Your task to perform on an android device: open chrome and create a bookmark for the current page Image 0: 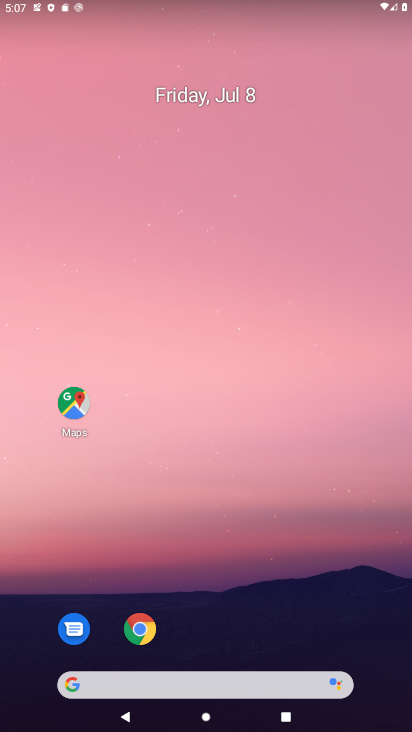
Step 0: press home button
Your task to perform on an android device: open chrome and create a bookmark for the current page Image 1: 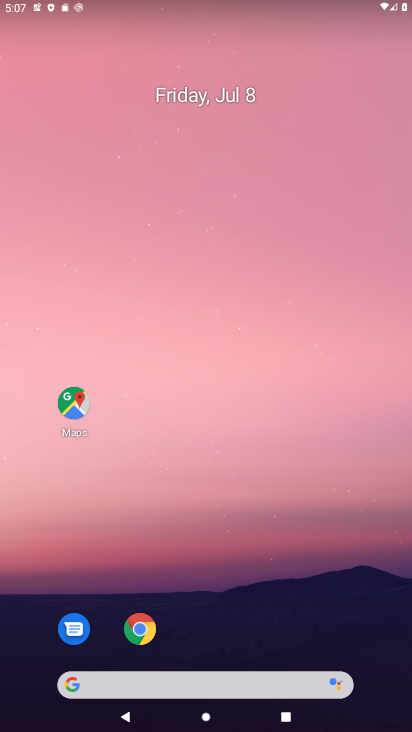
Step 1: drag from (240, 607) to (178, 154)
Your task to perform on an android device: open chrome and create a bookmark for the current page Image 2: 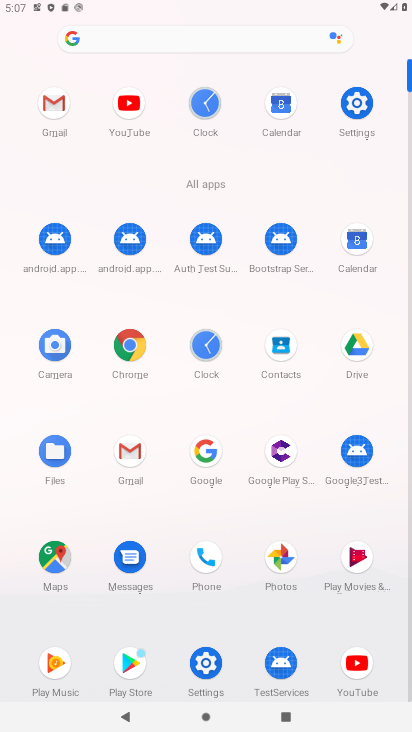
Step 2: click (132, 358)
Your task to perform on an android device: open chrome and create a bookmark for the current page Image 3: 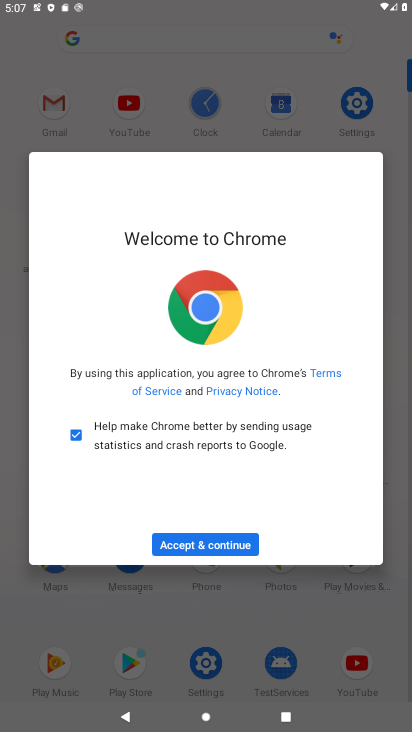
Step 3: click (200, 545)
Your task to perform on an android device: open chrome and create a bookmark for the current page Image 4: 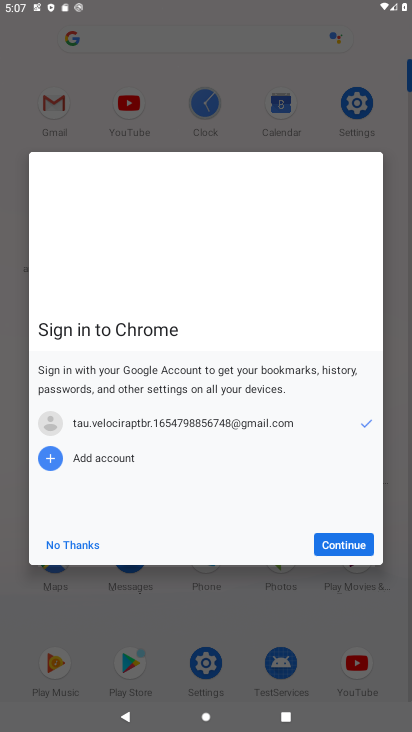
Step 4: click (328, 542)
Your task to perform on an android device: open chrome and create a bookmark for the current page Image 5: 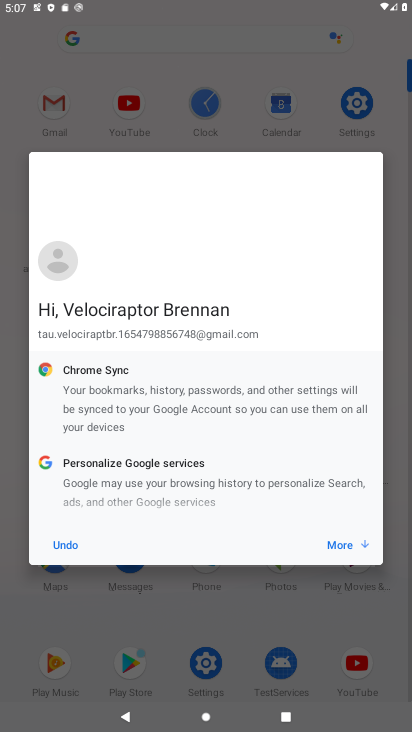
Step 5: click (346, 542)
Your task to perform on an android device: open chrome and create a bookmark for the current page Image 6: 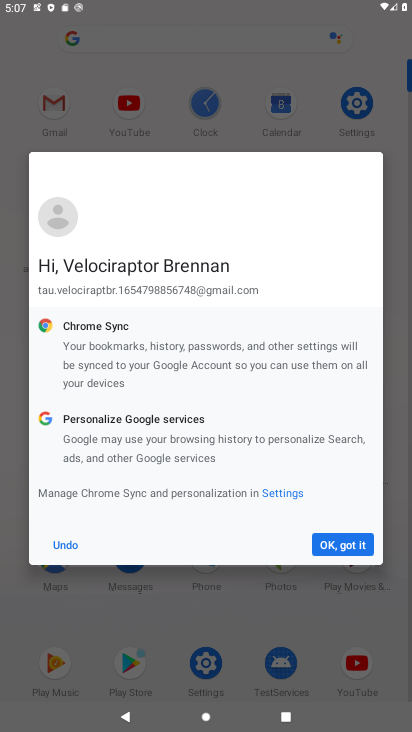
Step 6: click (346, 542)
Your task to perform on an android device: open chrome and create a bookmark for the current page Image 7: 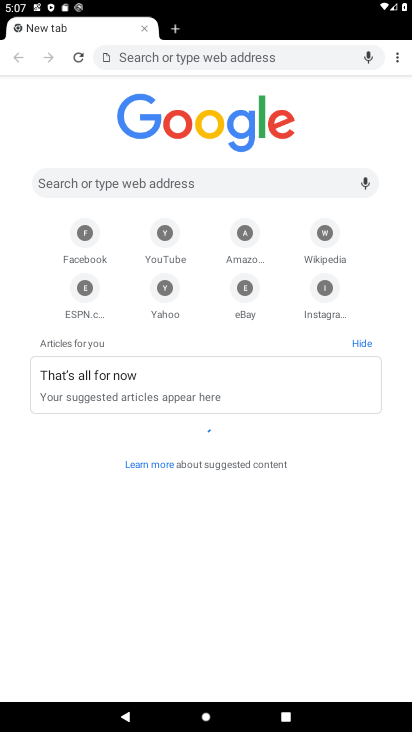
Step 7: drag from (398, 57) to (42, 109)
Your task to perform on an android device: open chrome and create a bookmark for the current page Image 8: 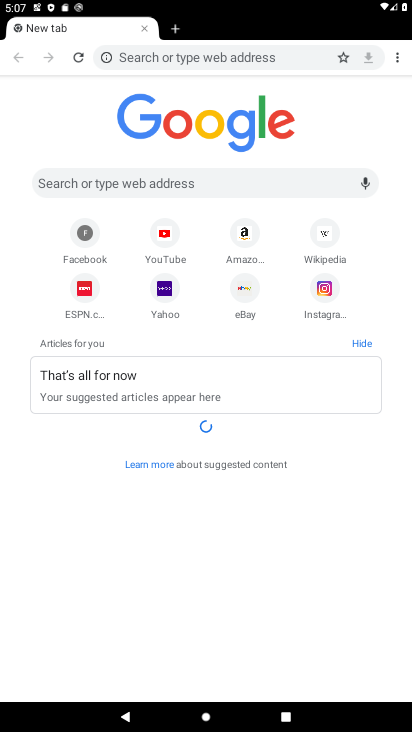
Step 8: click (343, 60)
Your task to perform on an android device: open chrome and create a bookmark for the current page Image 9: 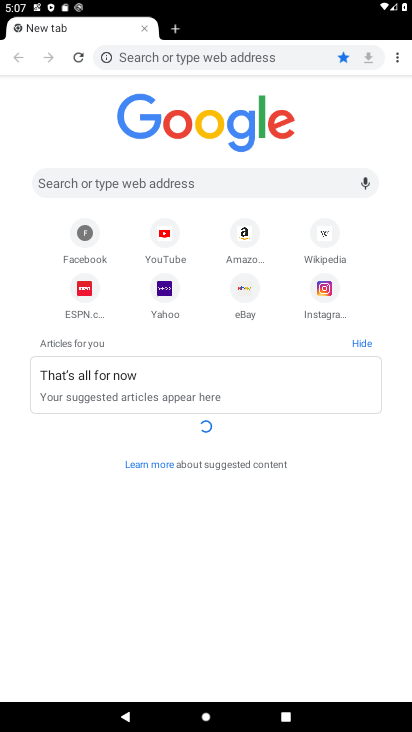
Step 9: task complete